Your task to perform on an android device: open a bookmark in the chrome app Image 0: 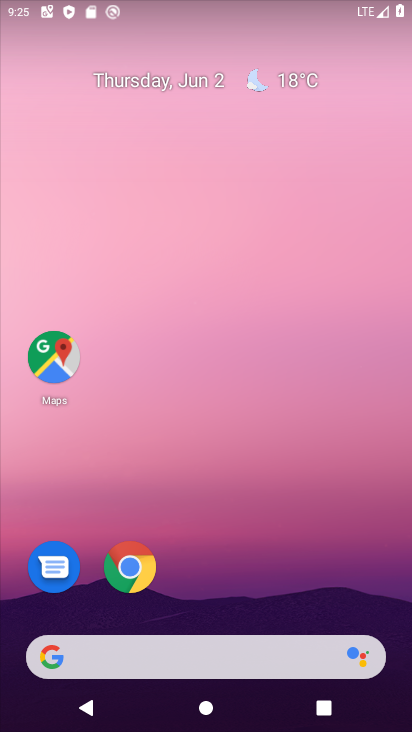
Step 0: click (127, 561)
Your task to perform on an android device: open a bookmark in the chrome app Image 1: 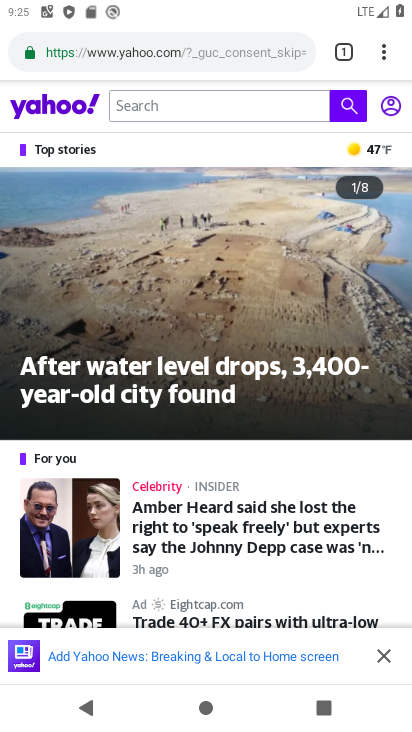
Step 1: click (390, 47)
Your task to perform on an android device: open a bookmark in the chrome app Image 2: 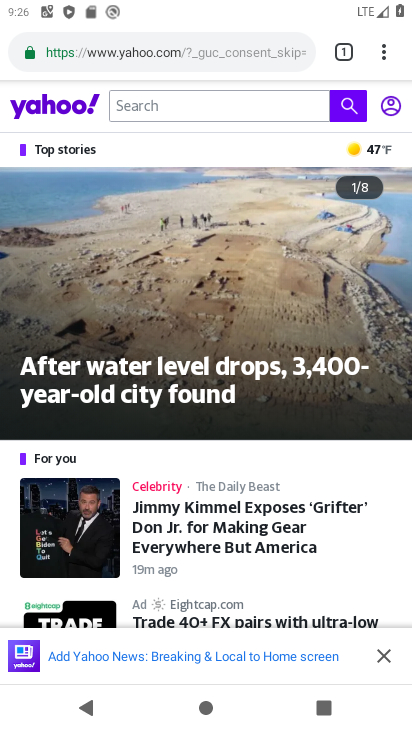
Step 2: click (385, 45)
Your task to perform on an android device: open a bookmark in the chrome app Image 3: 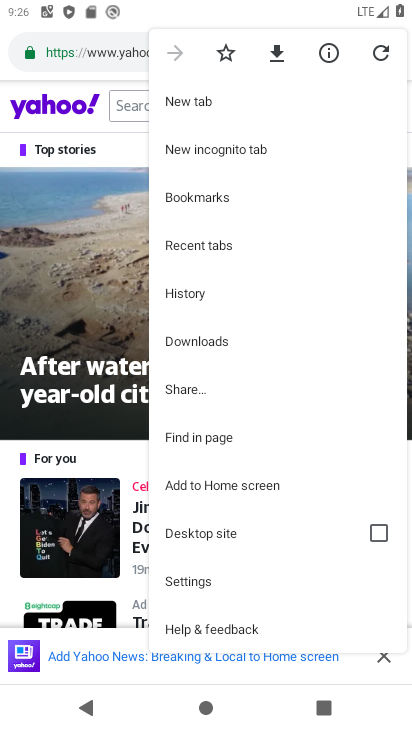
Step 3: click (242, 194)
Your task to perform on an android device: open a bookmark in the chrome app Image 4: 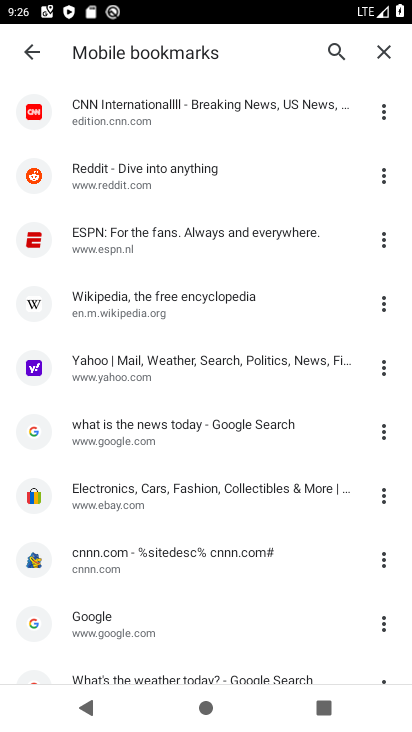
Step 4: click (191, 234)
Your task to perform on an android device: open a bookmark in the chrome app Image 5: 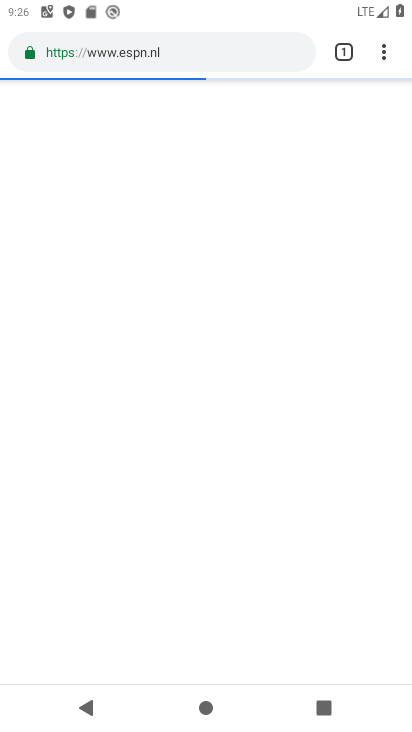
Step 5: task complete